Your task to perform on an android device: add a label to a message in the gmail app Image 0: 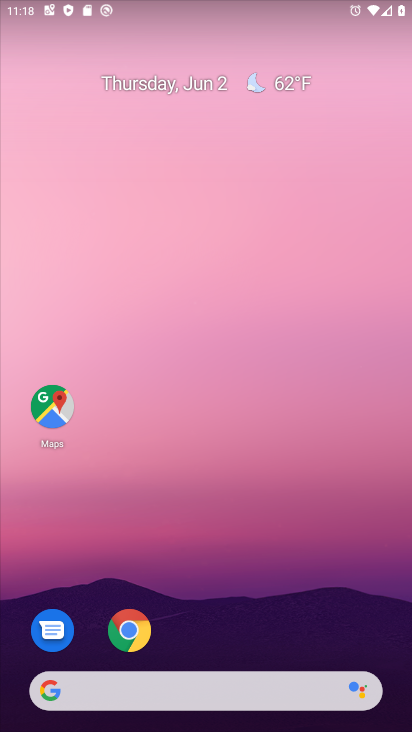
Step 0: press home button
Your task to perform on an android device: add a label to a message in the gmail app Image 1: 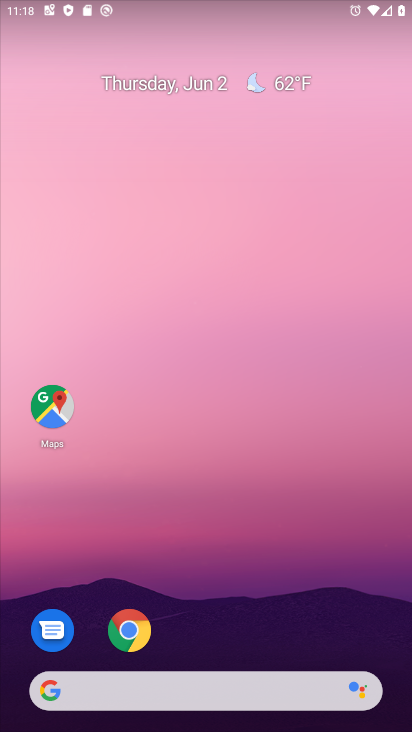
Step 1: drag from (165, 690) to (250, 169)
Your task to perform on an android device: add a label to a message in the gmail app Image 2: 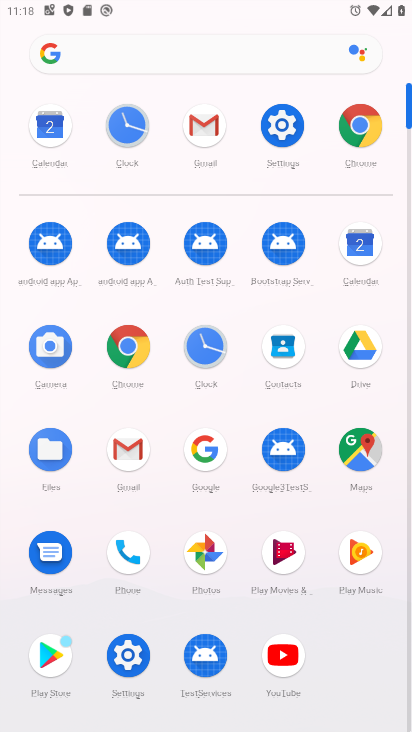
Step 2: click (203, 134)
Your task to perform on an android device: add a label to a message in the gmail app Image 3: 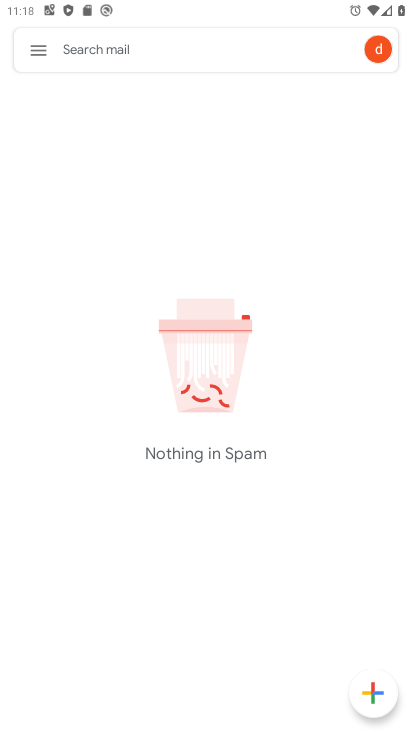
Step 3: click (42, 52)
Your task to perform on an android device: add a label to a message in the gmail app Image 4: 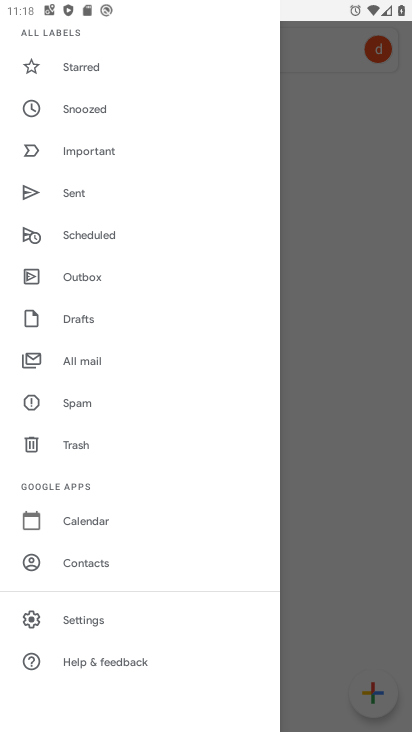
Step 4: click (79, 360)
Your task to perform on an android device: add a label to a message in the gmail app Image 5: 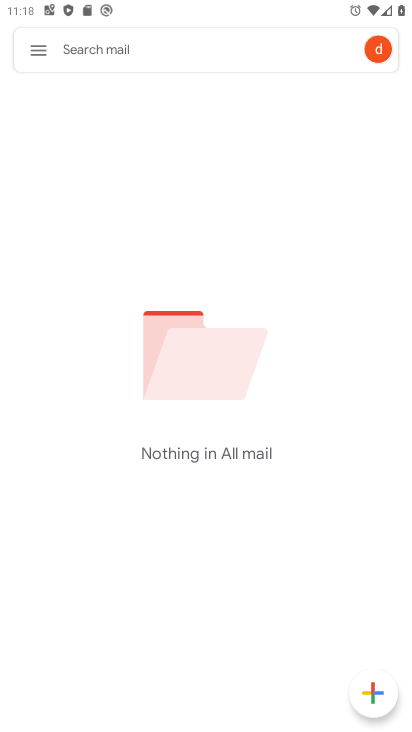
Step 5: task complete